Your task to perform on an android device: toggle translation in the chrome app Image 0: 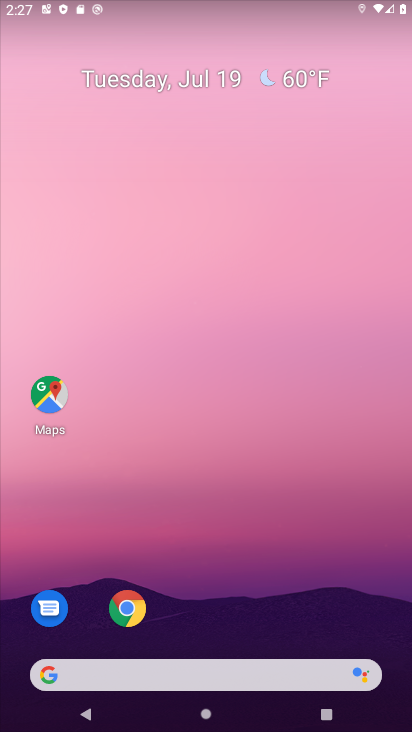
Step 0: drag from (248, 604) to (259, 21)
Your task to perform on an android device: toggle translation in the chrome app Image 1: 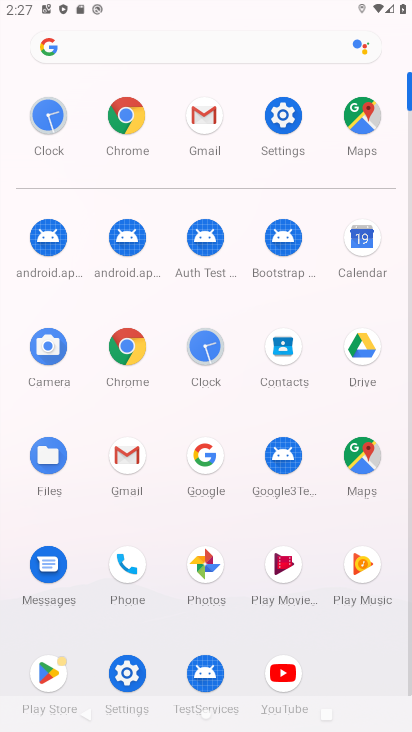
Step 1: click (122, 111)
Your task to perform on an android device: toggle translation in the chrome app Image 2: 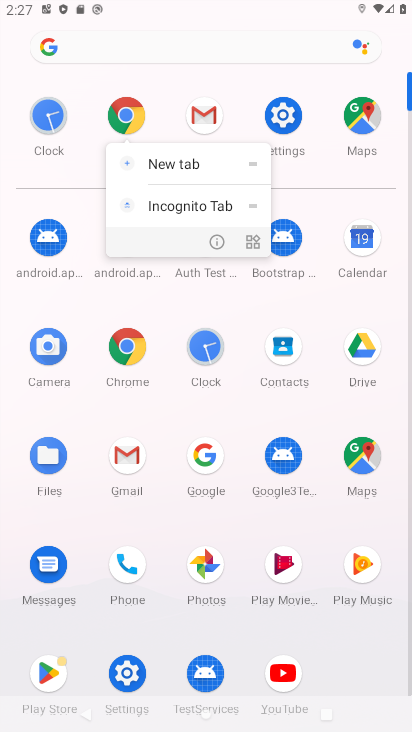
Step 2: click (122, 111)
Your task to perform on an android device: toggle translation in the chrome app Image 3: 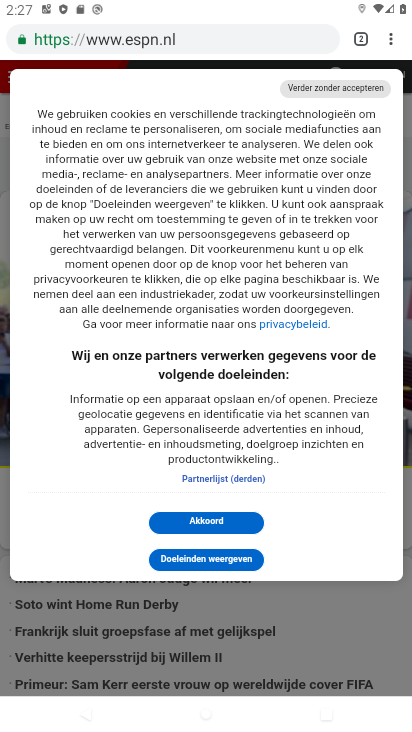
Step 3: drag from (386, 40) to (243, 478)
Your task to perform on an android device: toggle translation in the chrome app Image 4: 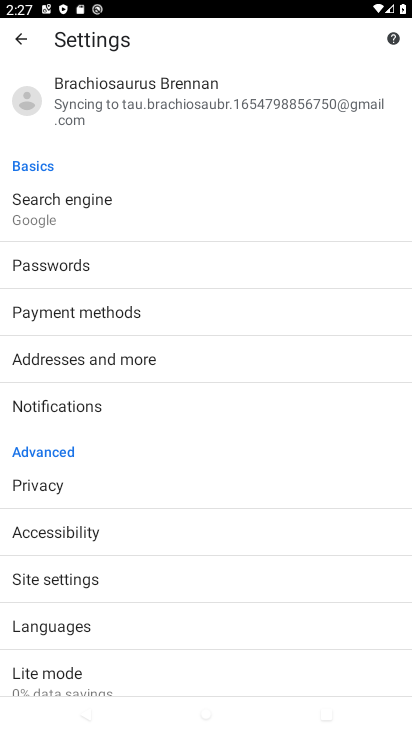
Step 4: drag from (82, 631) to (132, 286)
Your task to perform on an android device: toggle translation in the chrome app Image 5: 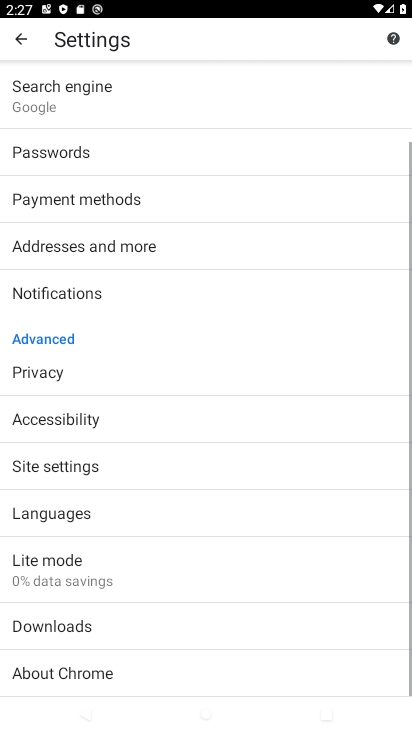
Step 5: click (32, 517)
Your task to perform on an android device: toggle translation in the chrome app Image 6: 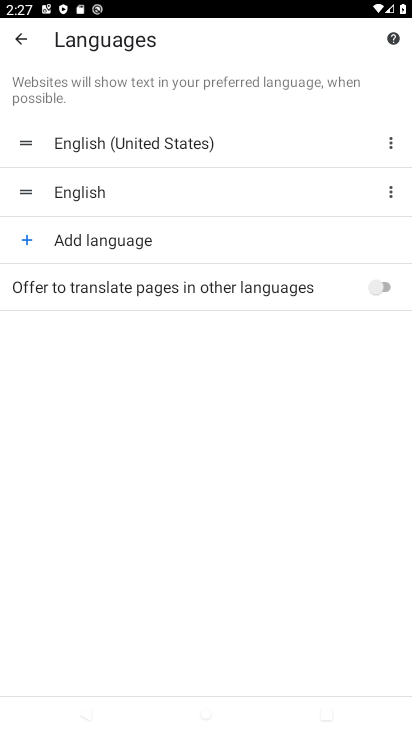
Step 6: click (375, 286)
Your task to perform on an android device: toggle translation in the chrome app Image 7: 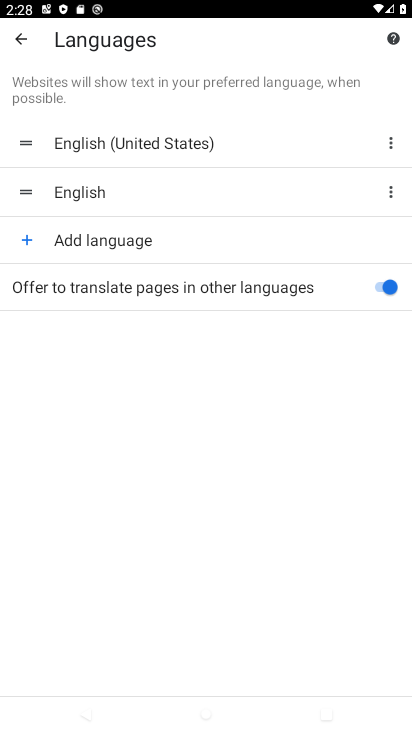
Step 7: task complete